Your task to perform on an android device: Open settings on Google Maps Image 0: 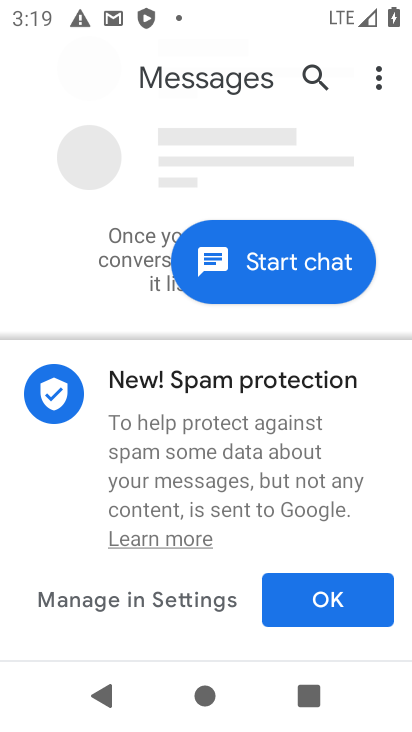
Step 0: press home button
Your task to perform on an android device: Open settings on Google Maps Image 1: 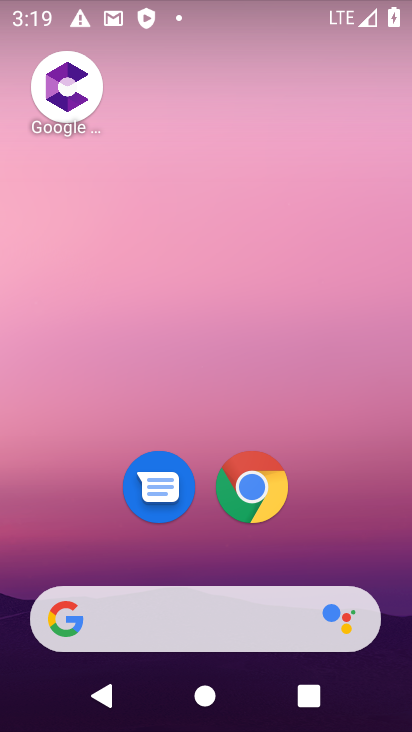
Step 1: drag from (371, 461) to (356, 26)
Your task to perform on an android device: Open settings on Google Maps Image 2: 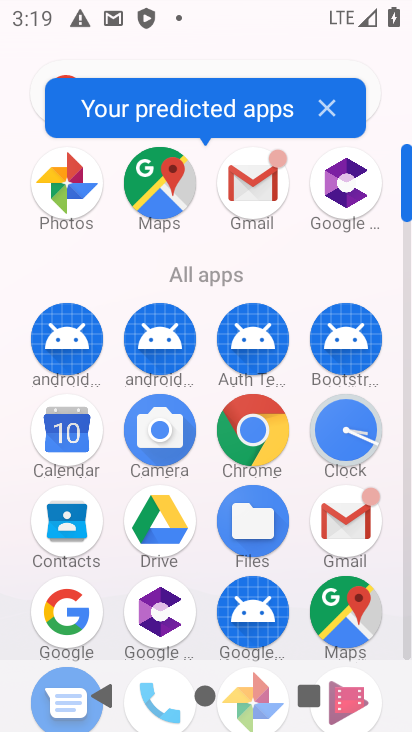
Step 2: click (346, 627)
Your task to perform on an android device: Open settings on Google Maps Image 3: 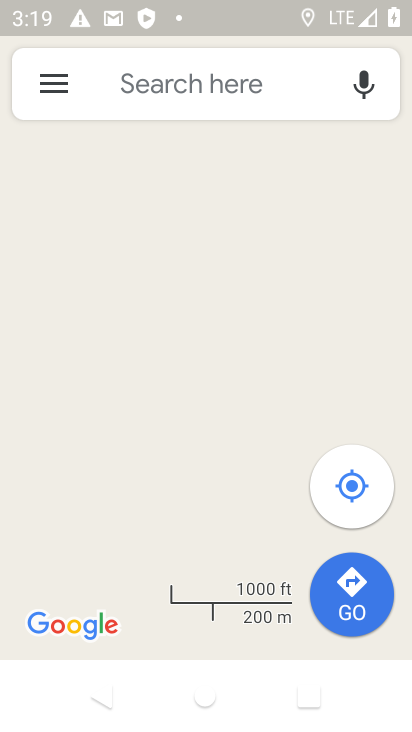
Step 3: click (58, 78)
Your task to perform on an android device: Open settings on Google Maps Image 4: 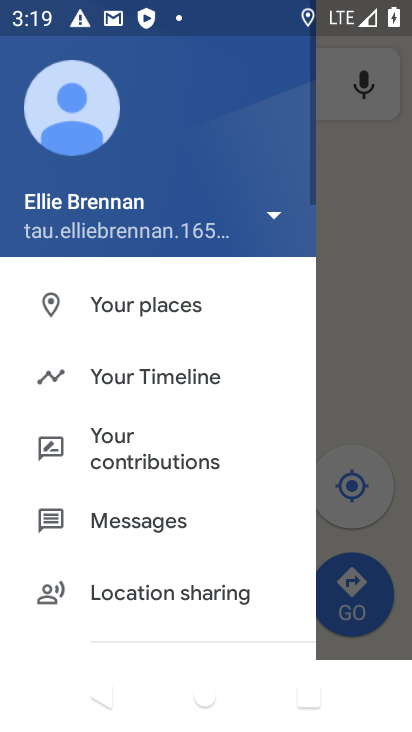
Step 4: drag from (112, 600) to (184, 178)
Your task to perform on an android device: Open settings on Google Maps Image 5: 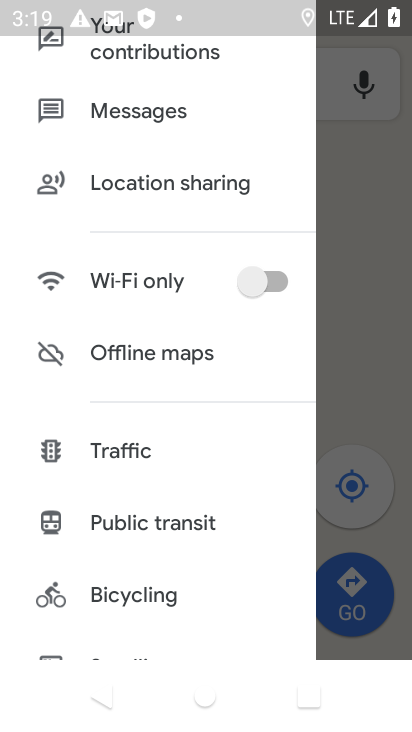
Step 5: drag from (139, 481) to (220, 236)
Your task to perform on an android device: Open settings on Google Maps Image 6: 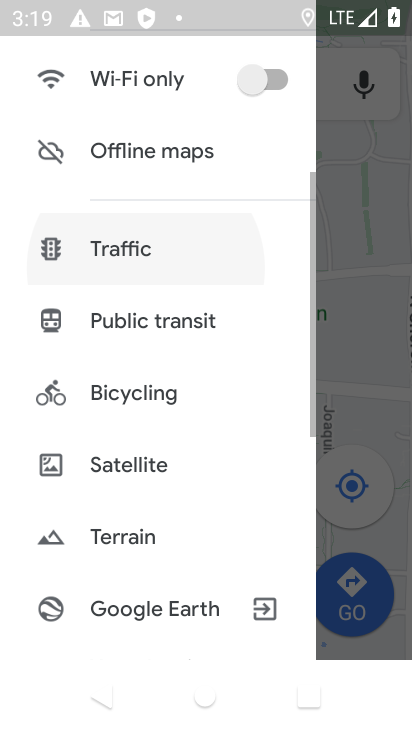
Step 6: drag from (130, 512) to (204, 212)
Your task to perform on an android device: Open settings on Google Maps Image 7: 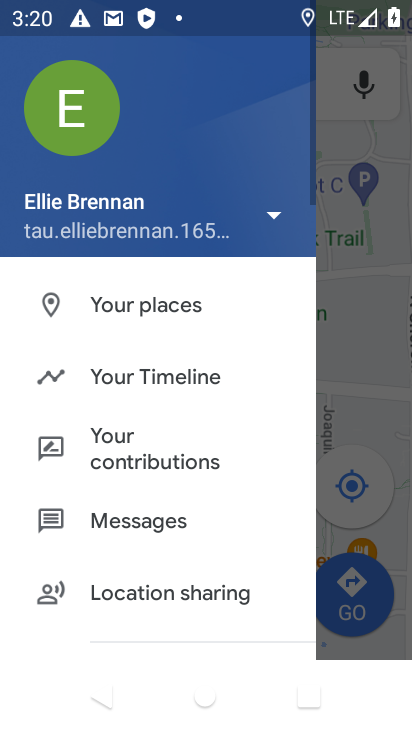
Step 7: drag from (137, 551) to (194, 190)
Your task to perform on an android device: Open settings on Google Maps Image 8: 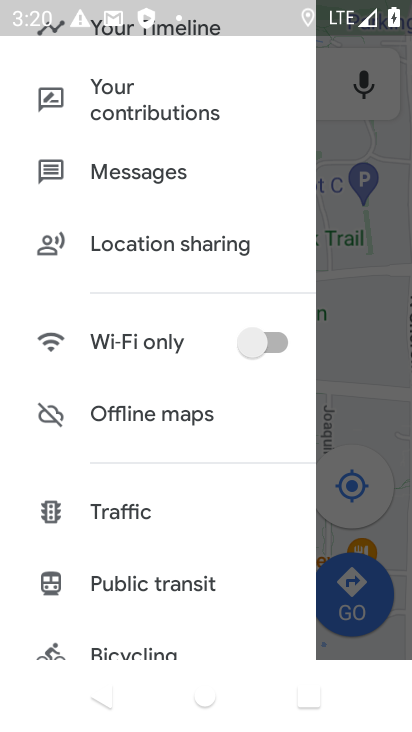
Step 8: drag from (154, 621) to (197, 199)
Your task to perform on an android device: Open settings on Google Maps Image 9: 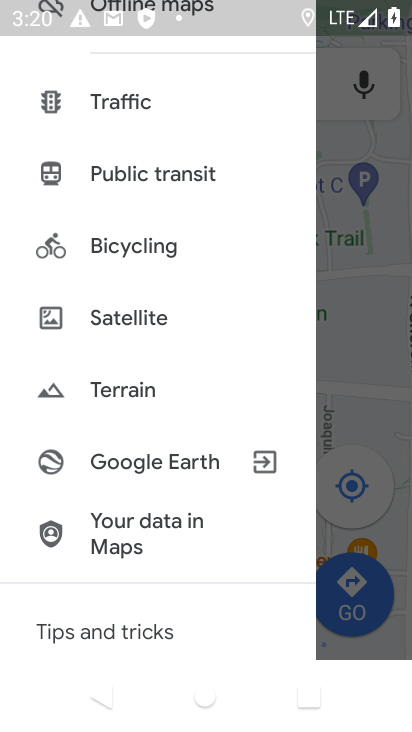
Step 9: drag from (116, 588) to (234, 223)
Your task to perform on an android device: Open settings on Google Maps Image 10: 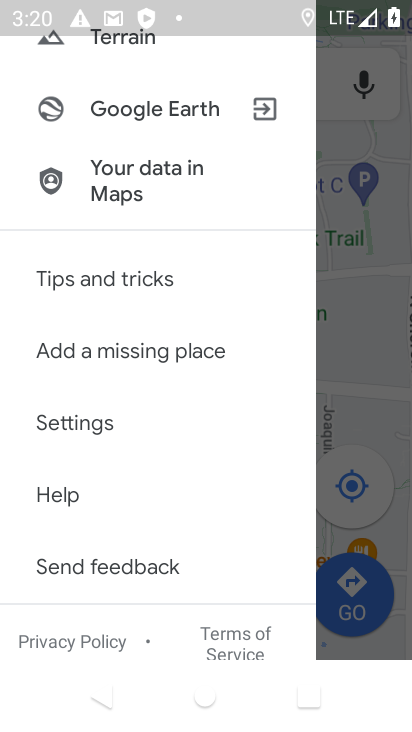
Step 10: click (79, 427)
Your task to perform on an android device: Open settings on Google Maps Image 11: 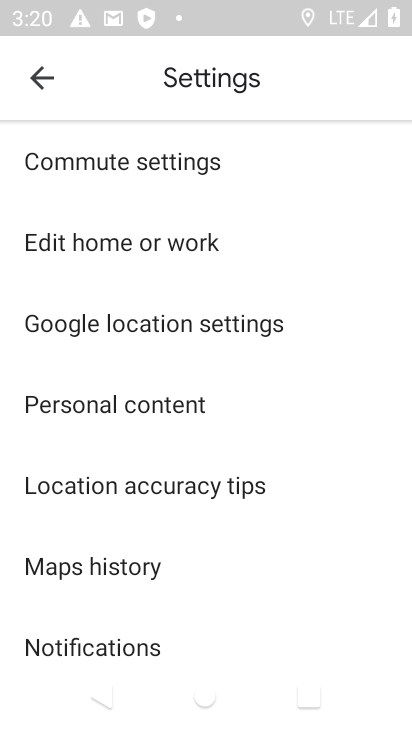
Step 11: task complete